Your task to perform on an android device: check android version Image 0: 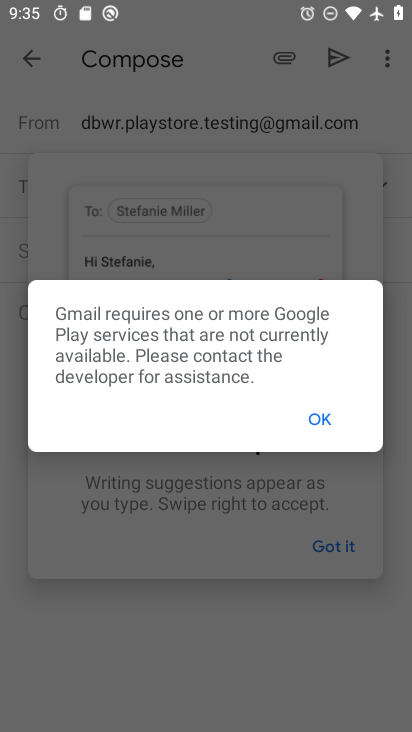
Step 0: press home button
Your task to perform on an android device: check android version Image 1: 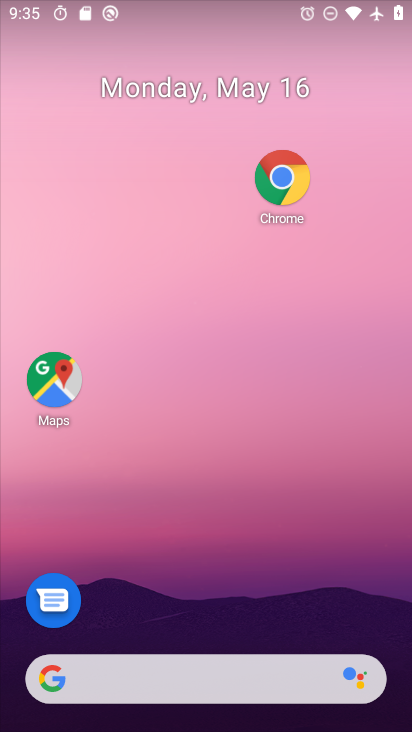
Step 1: drag from (203, 677) to (329, 135)
Your task to perform on an android device: check android version Image 2: 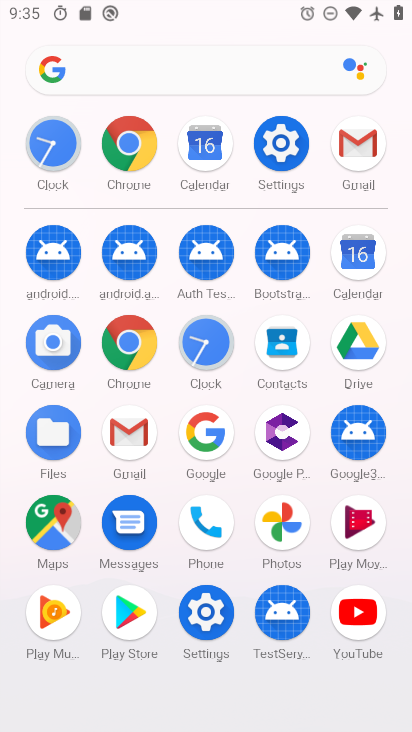
Step 2: click (292, 160)
Your task to perform on an android device: check android version Image 3: 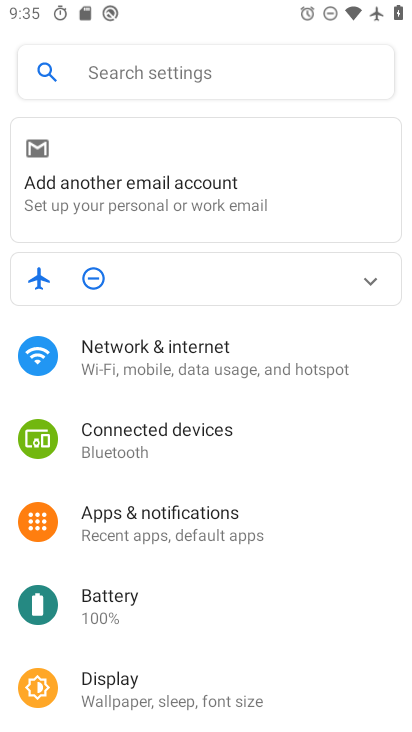
Step 3: drag from (246, 652) to (316, 38)
Your task to perform on an android device: check android version Image 4: 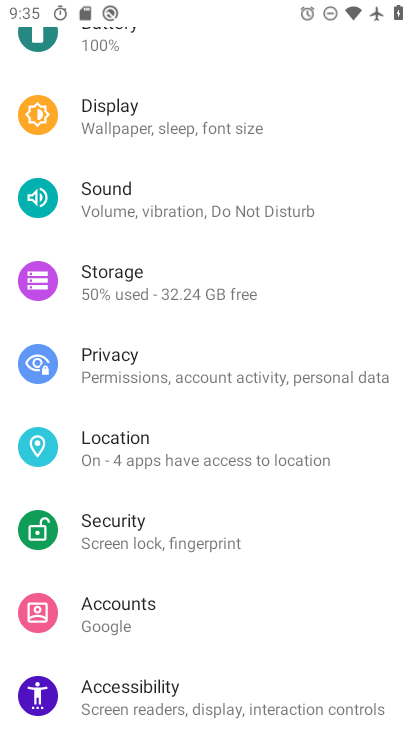
Step 4: drag from (247, 653) to (346, 41)
Your task to perform on an android device: check android version Image 5: 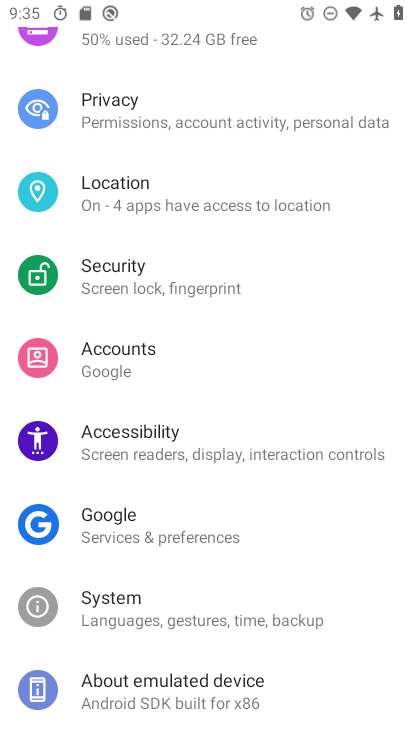
Step 5: click (166, 701)
Your task to perform on an android device: check android version Image 6: 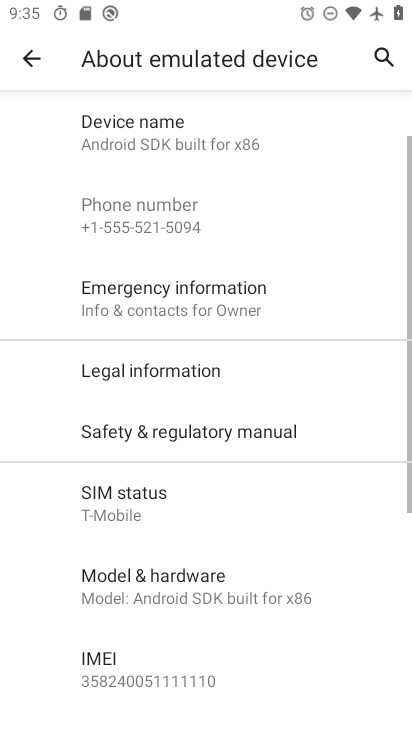
Step 6: drag from (285, 580) to (304, 97)
Your task to perform on an android device: check android version Image 7: 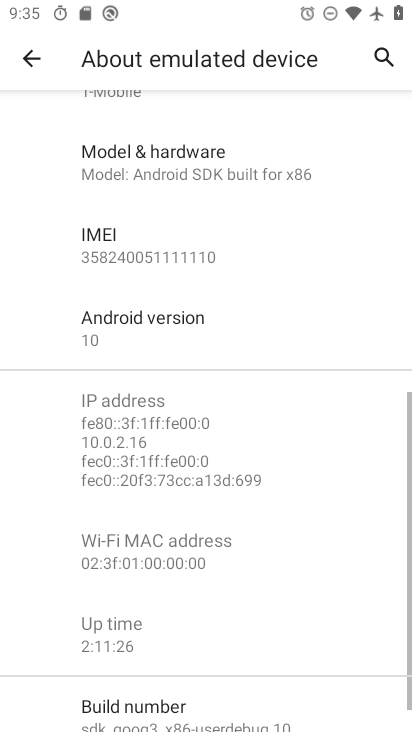
Step 7: click (130, 319)
Your task to perform on an android device: check android version Image 8: 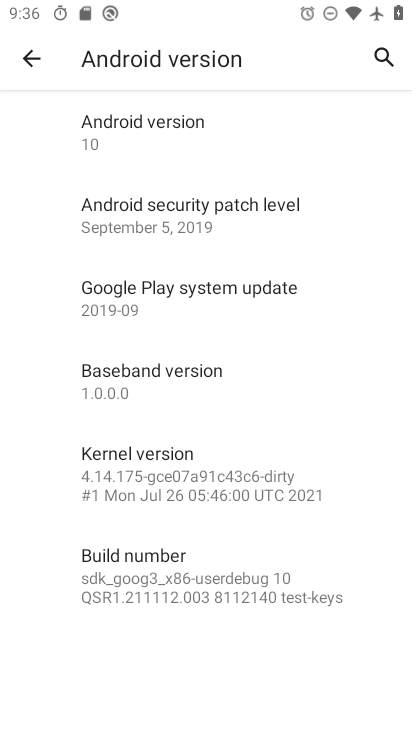
Step 8: task complete